Your task to perform on an android device: Search for razer deathadder on newegg, select the first entry, add it to the cart, then select checkout. Image 0: 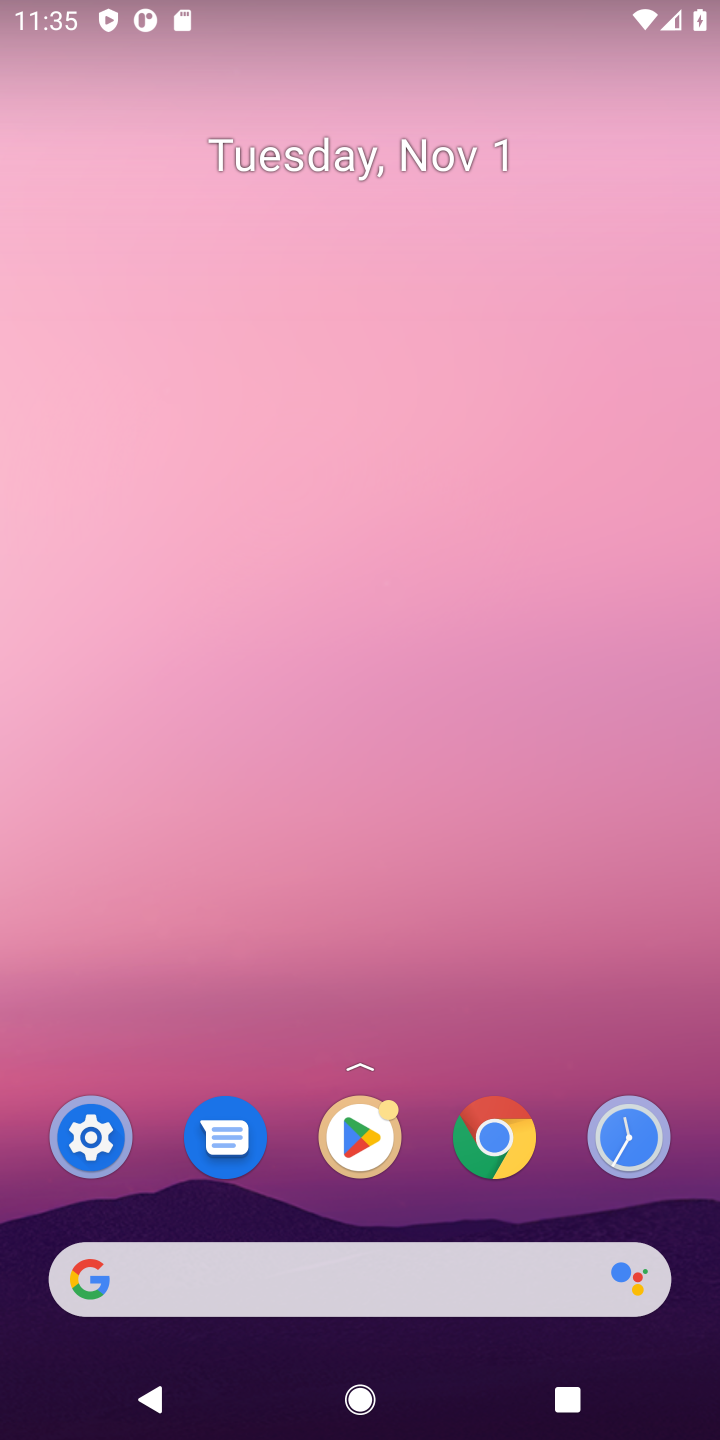
Step 0: click (229, 1292)
Your task to perform on an android device: Search for razer deathadder on newegg, select the first entry, add it to the cart, then select checkout. Image 1: 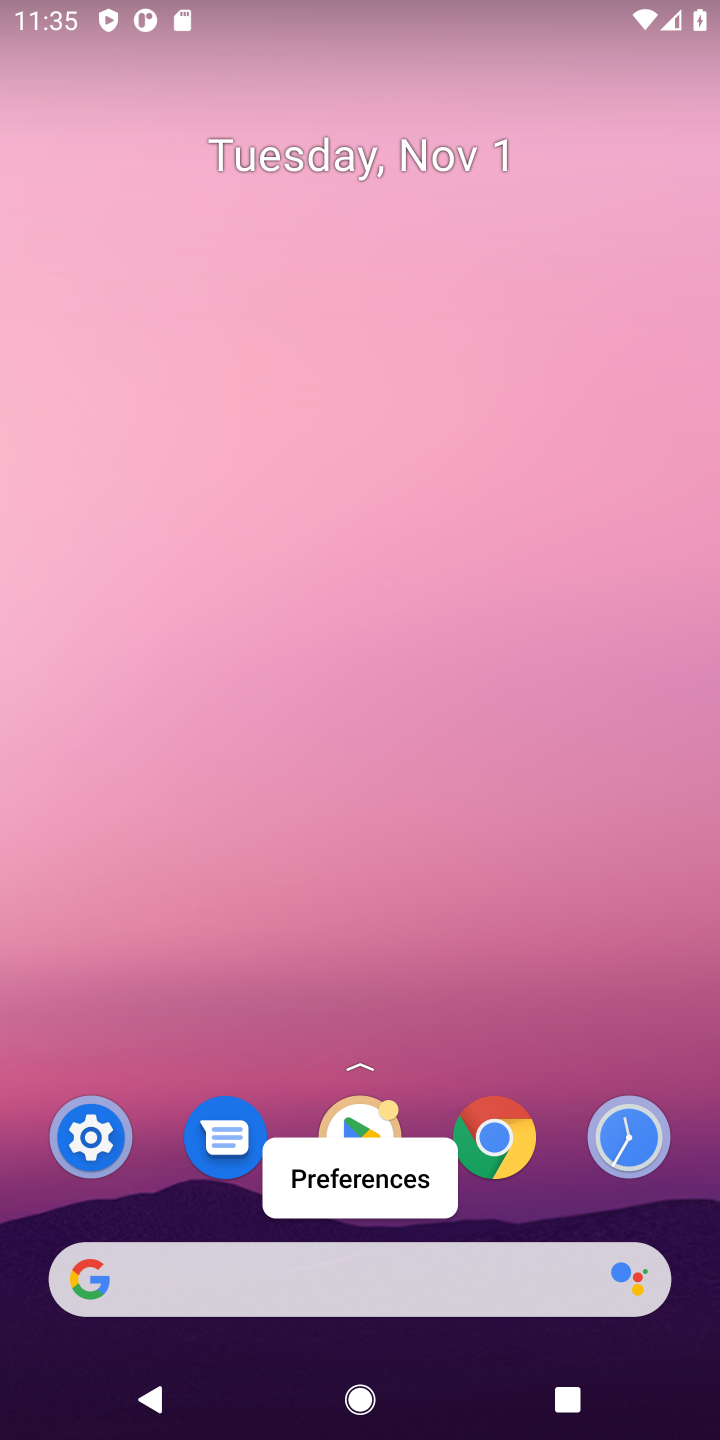
Step 1: click (231, 1277)
Your task to perform on an android device: Search for razer deathadder on newegg, select the first entry, add it to the cart, then select checkout. Image 2: 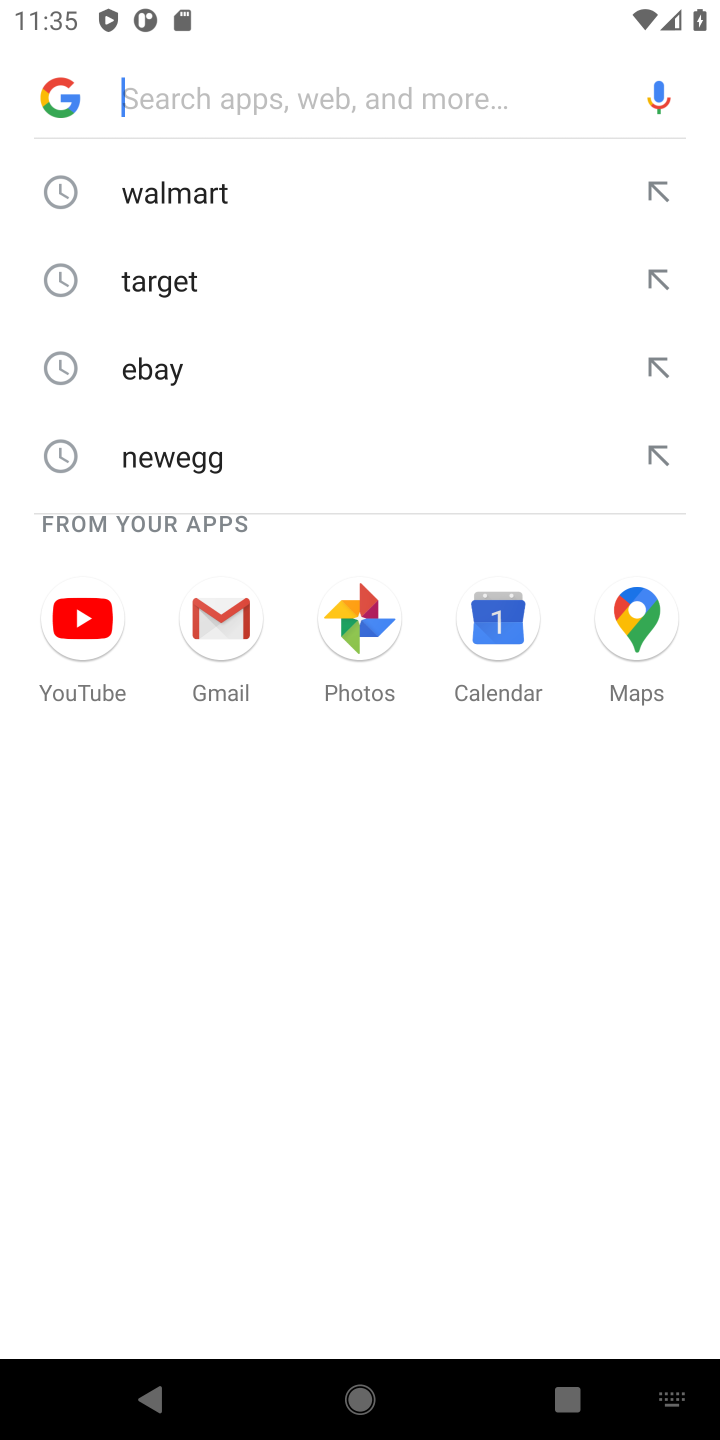
Step 2: type "newegg"
Your task to perform on an android device: Search for razer deathadder on newegg, select the first entry, add it to the cart, then select checkout. Image 3: 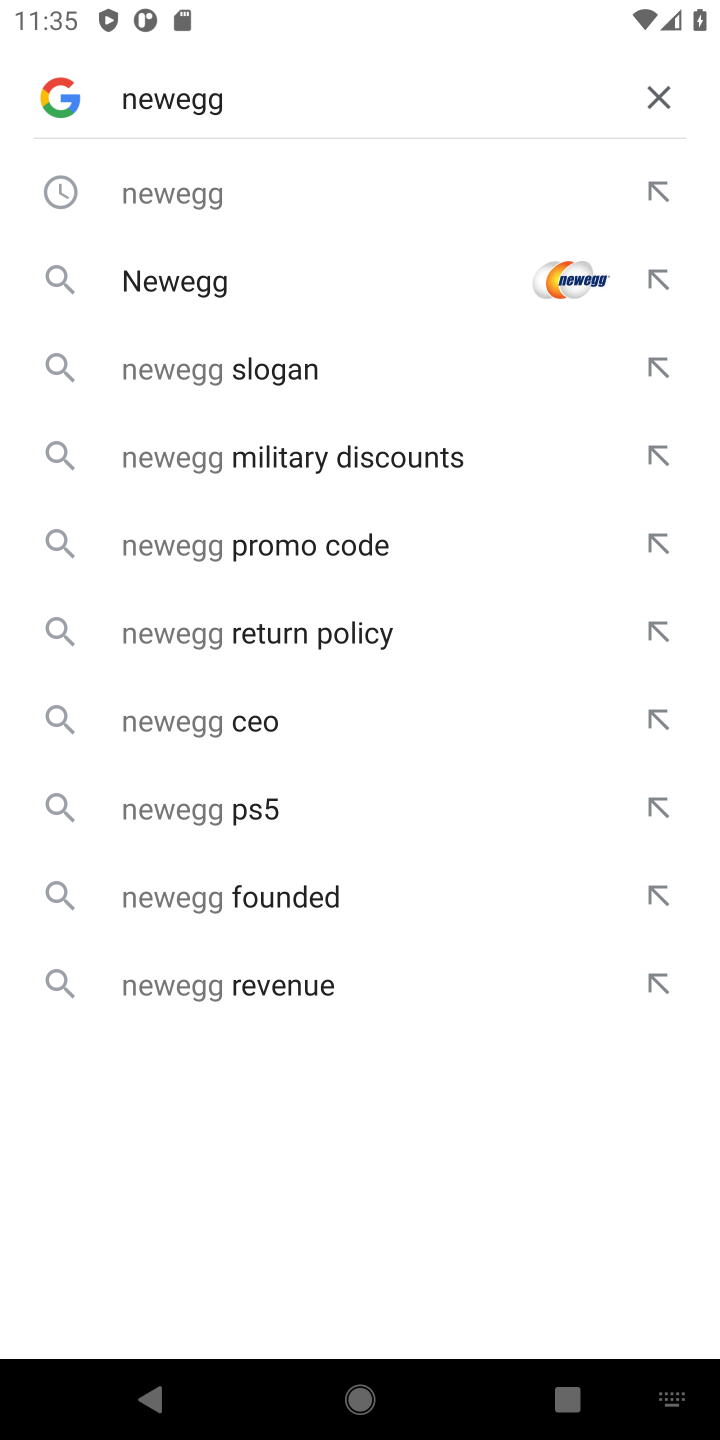
Step 3: type ""
Your task to perform on an android device: Search for razer deathadder on newegg, select the first entry, add it to the cart, then select checkout. Image 4: 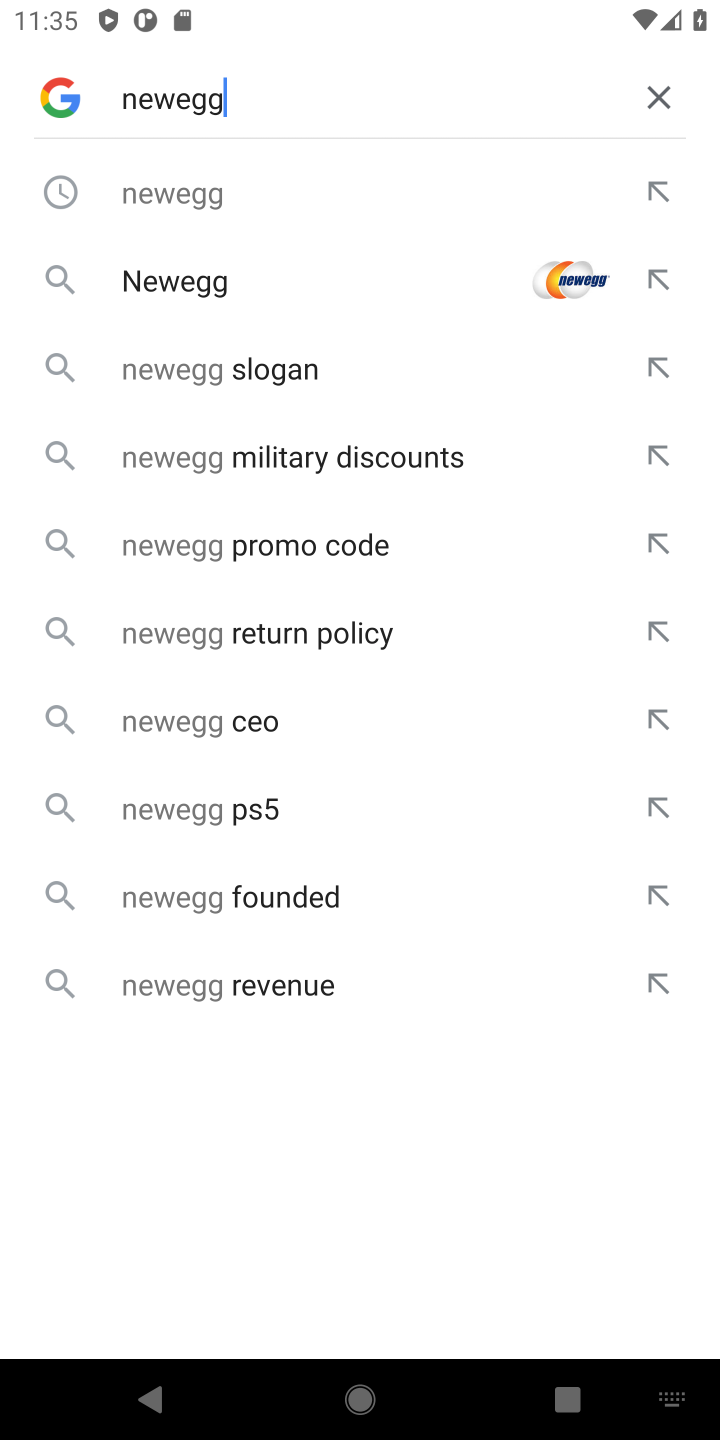
Step 4: press enter
Your task to perform on an android device: Search for razer deathadder on newegg, select the first entry, add it to the cart, then select checkout. Image 5: 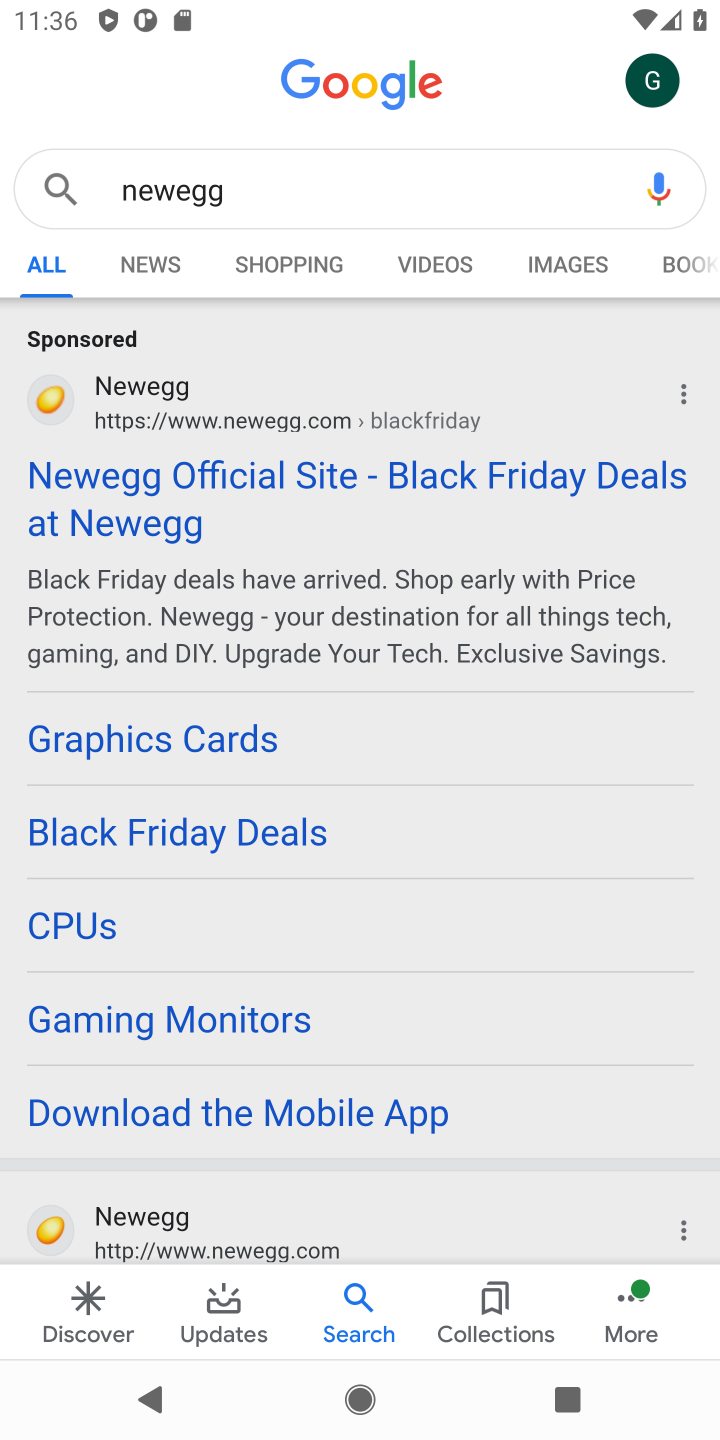
Step 5: click (174, 519)
Your task to perform on an android device: Search for razer deathadder on newegg, select the first entry, add it to the cart, then select checkout. Image 6: 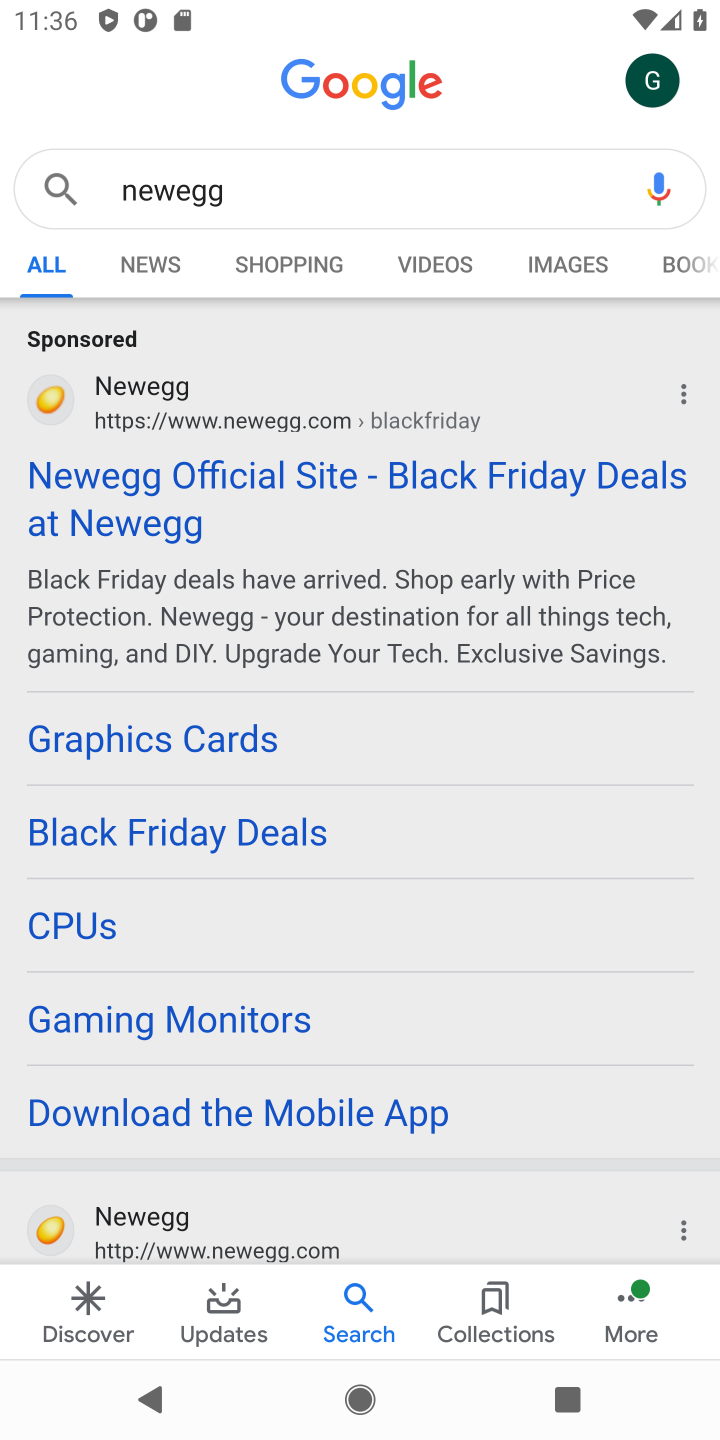
Step 6: click (167, 521)
Your task to perform on an android device: Search for razer deathadder on newegg, select the first entry, add it to the cart, then select checkout. Image 7: 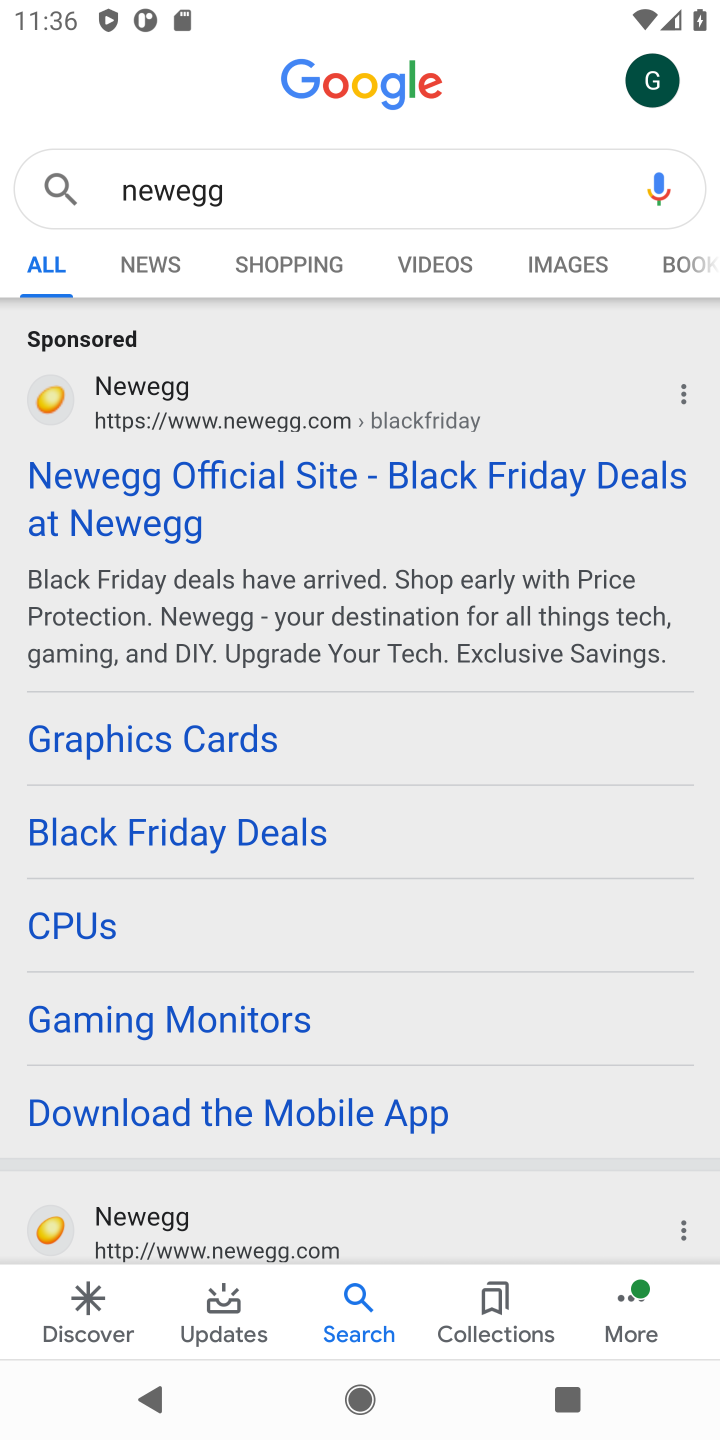
Step 7: click (167, 521)
Your task to perform on an android device: Search for razer deathadder on newegg, select the first entry, add it to the cart, then select checkout. Image 8: 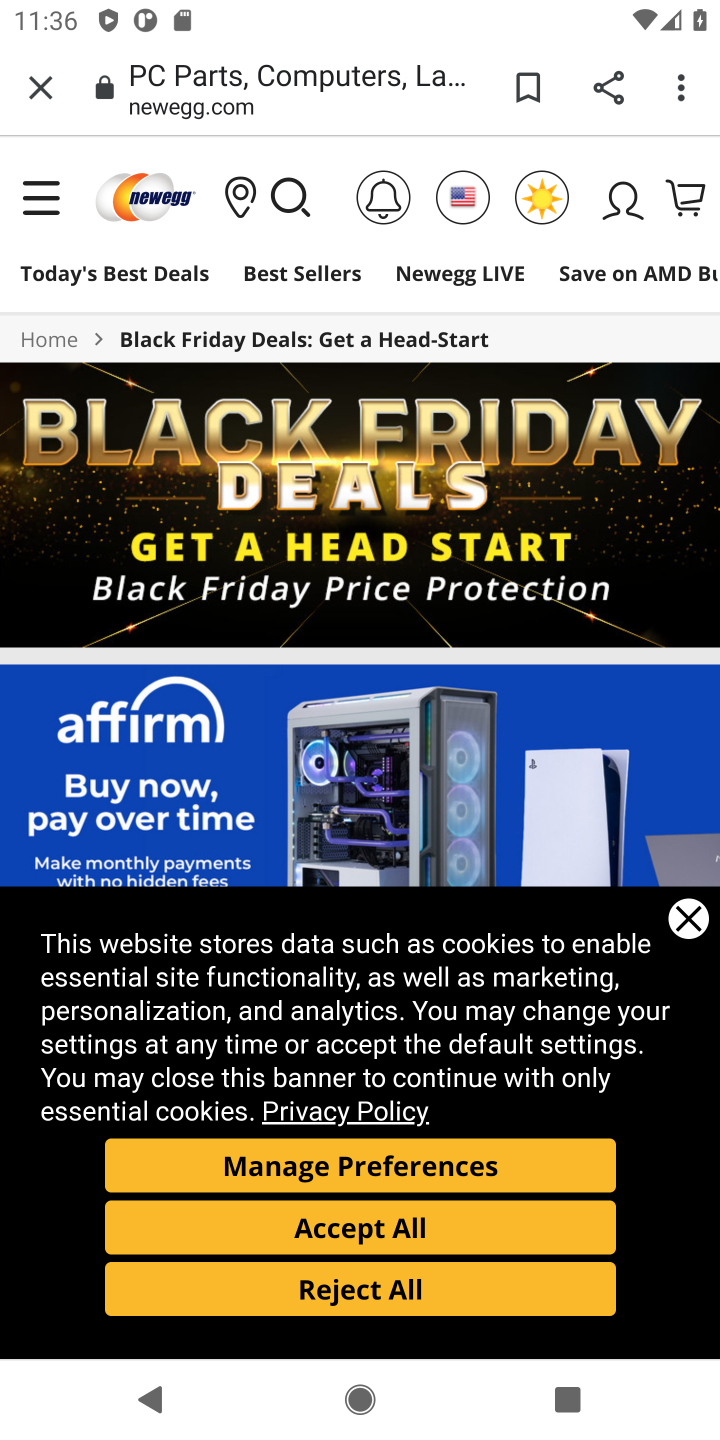
Step 8: click (391, 1292)
Your task to perform on an android device: Search for razer deathadder on newegg, select the first entry, add it to the cart, then select checkout. Image 9: 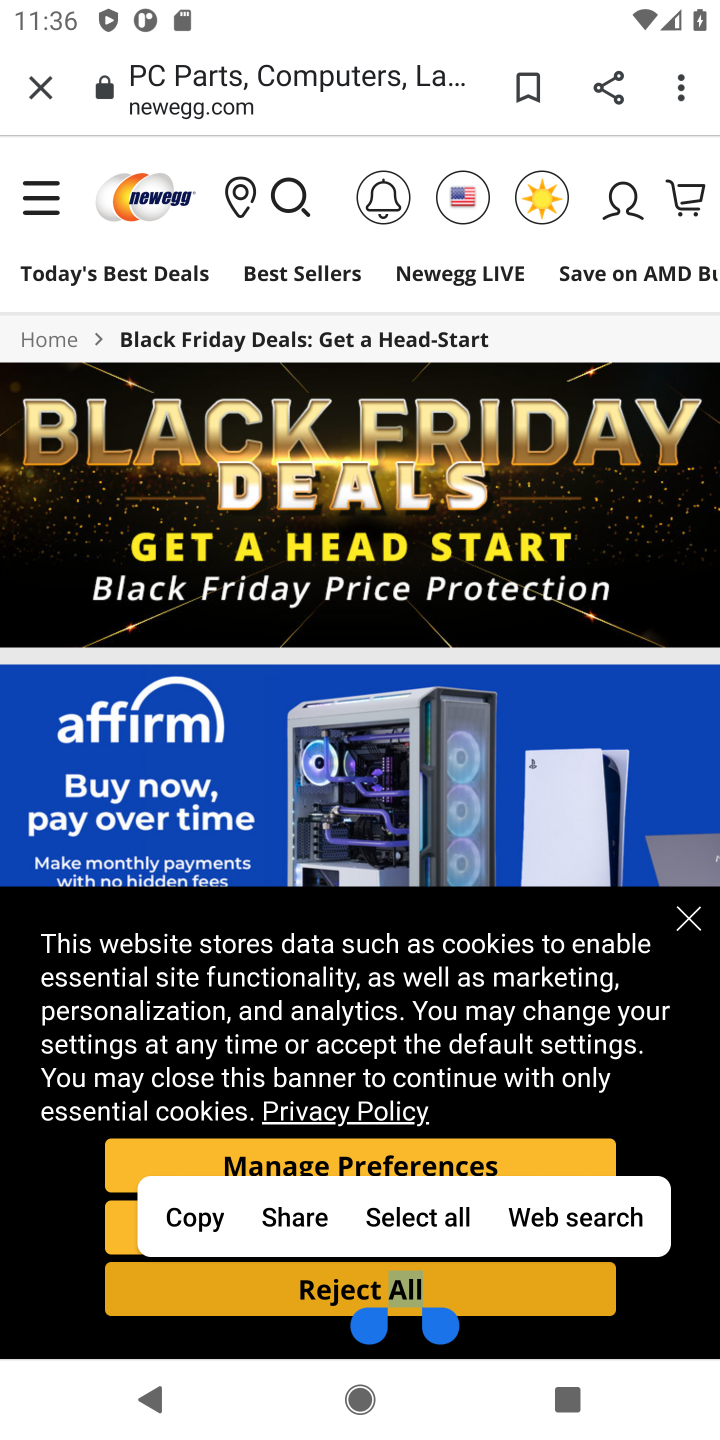
Step 9: click (342, 1294)
Your task to perform on an android device: Search for razer deathadder on newegg, select the first entry, add it to the cart, then select checkout. Image 10: 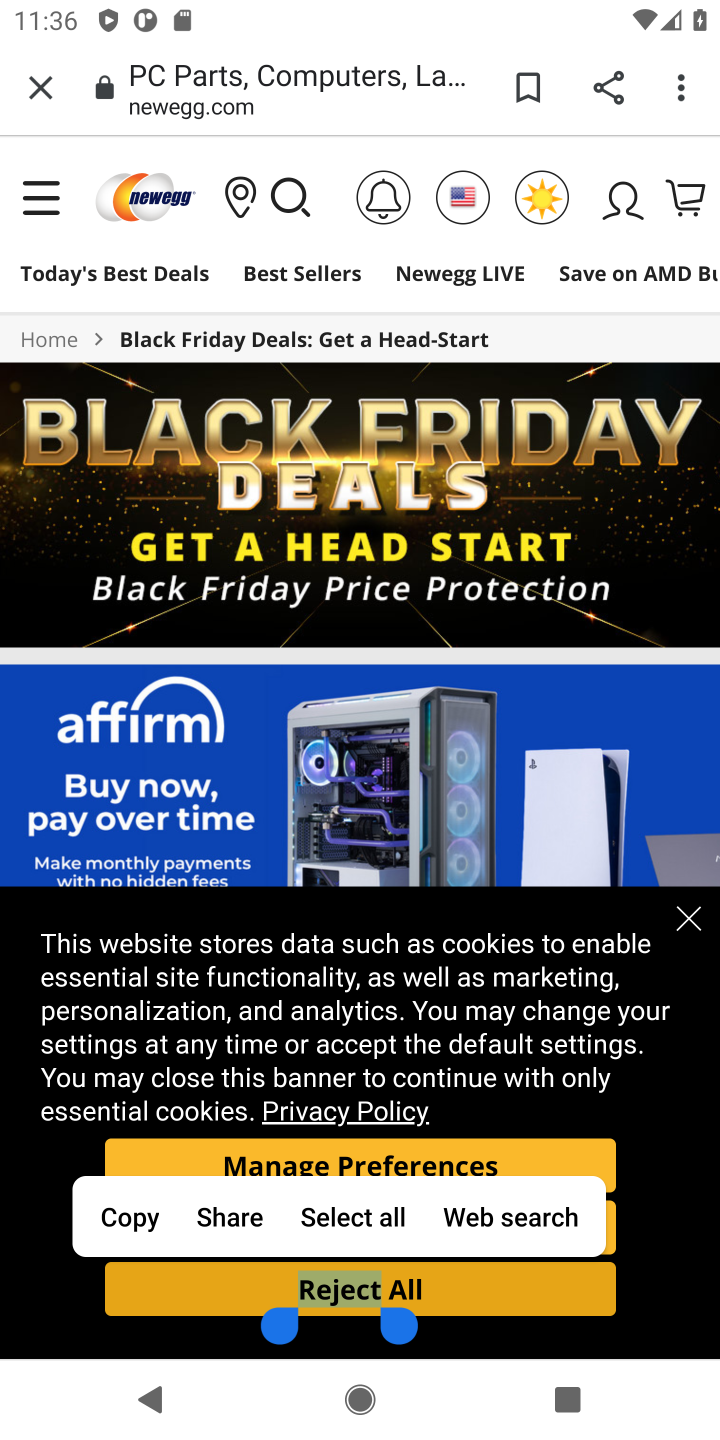
Step 10: click (342, 1294)
Your task to perform on an android device: Search for razer deathadder on newegg, select the first entry, add it to the cart, then select checkout. Image 11: 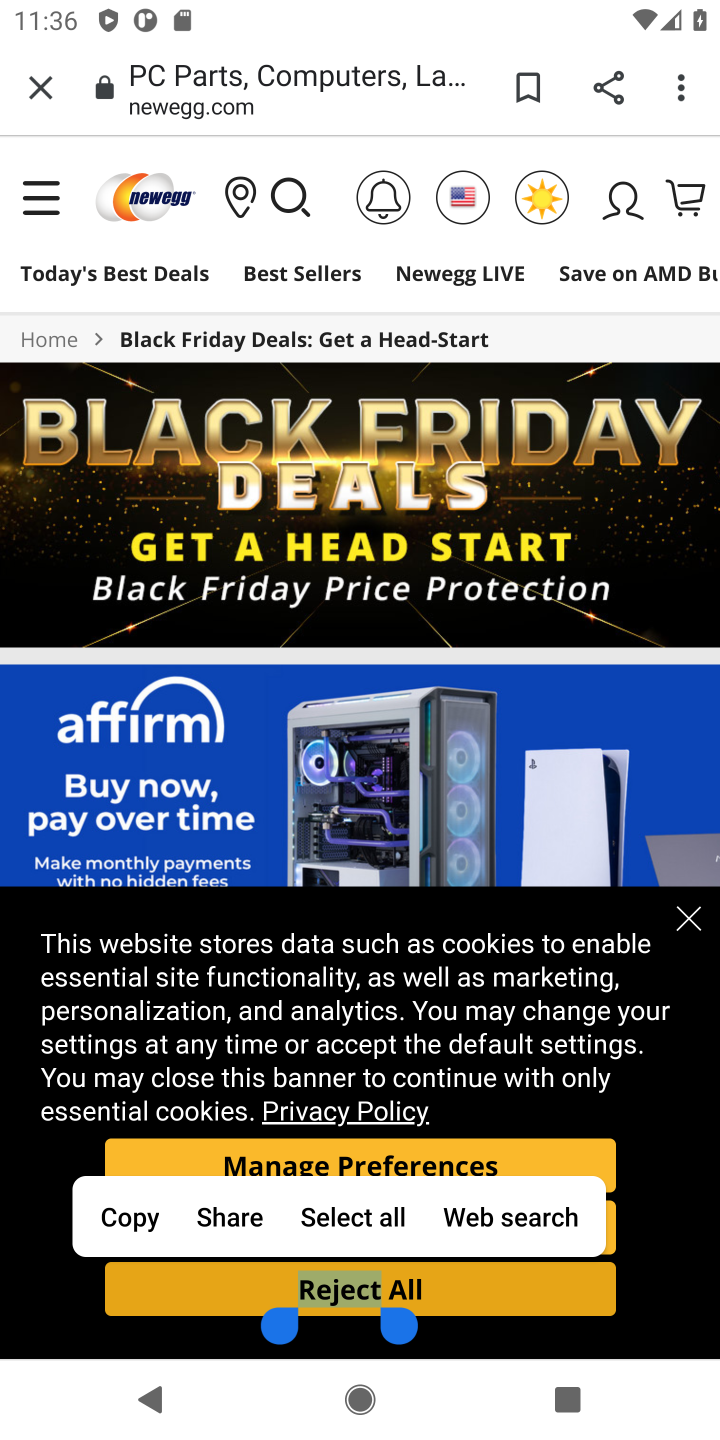
Step 11: click (42, 1213)
Your task to perform on an android device: Search for razer deathadder on newegg, select the first entry, add it to the cart, then select checkout. Image 12: 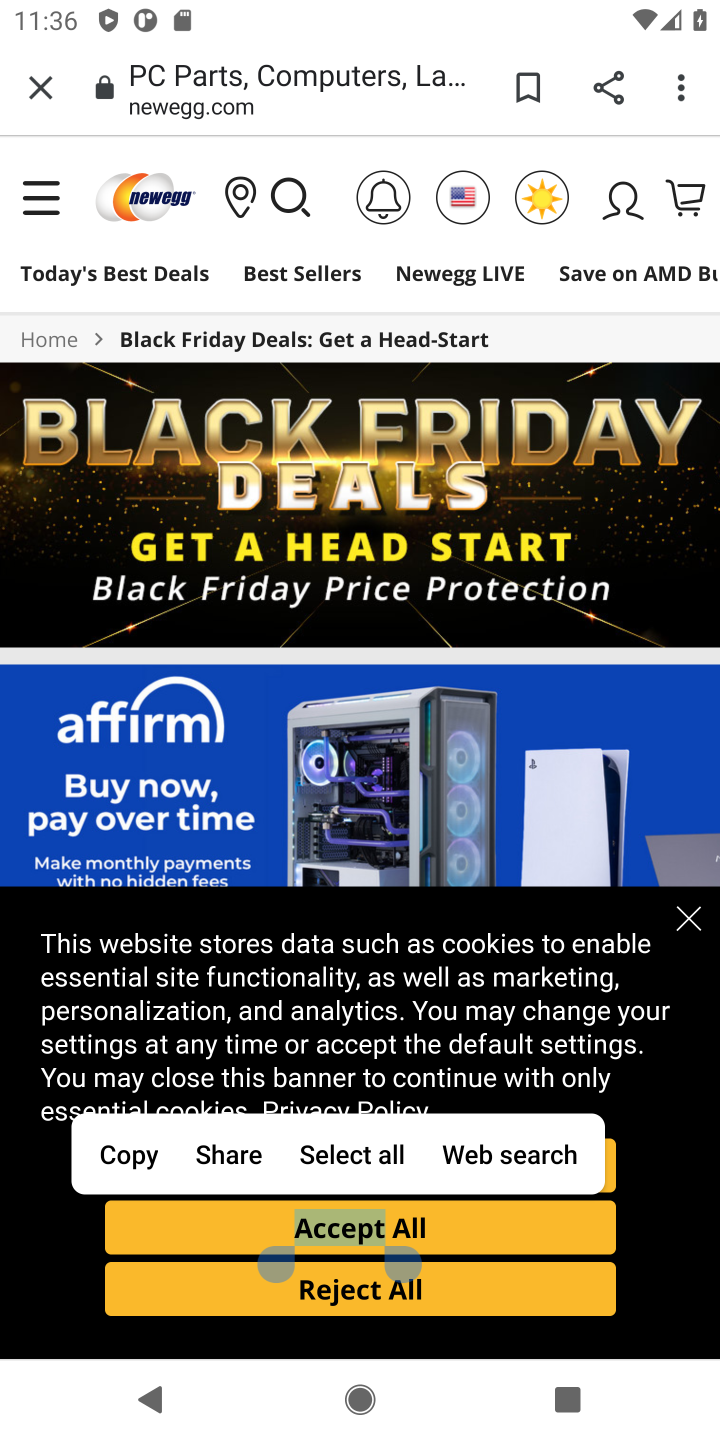
Step 12: click (407, 1290)
Your task to perform on an android device: Search for razer deathadder on newegg, select the first entry, add it to the cart, then select checkout. Image 13: 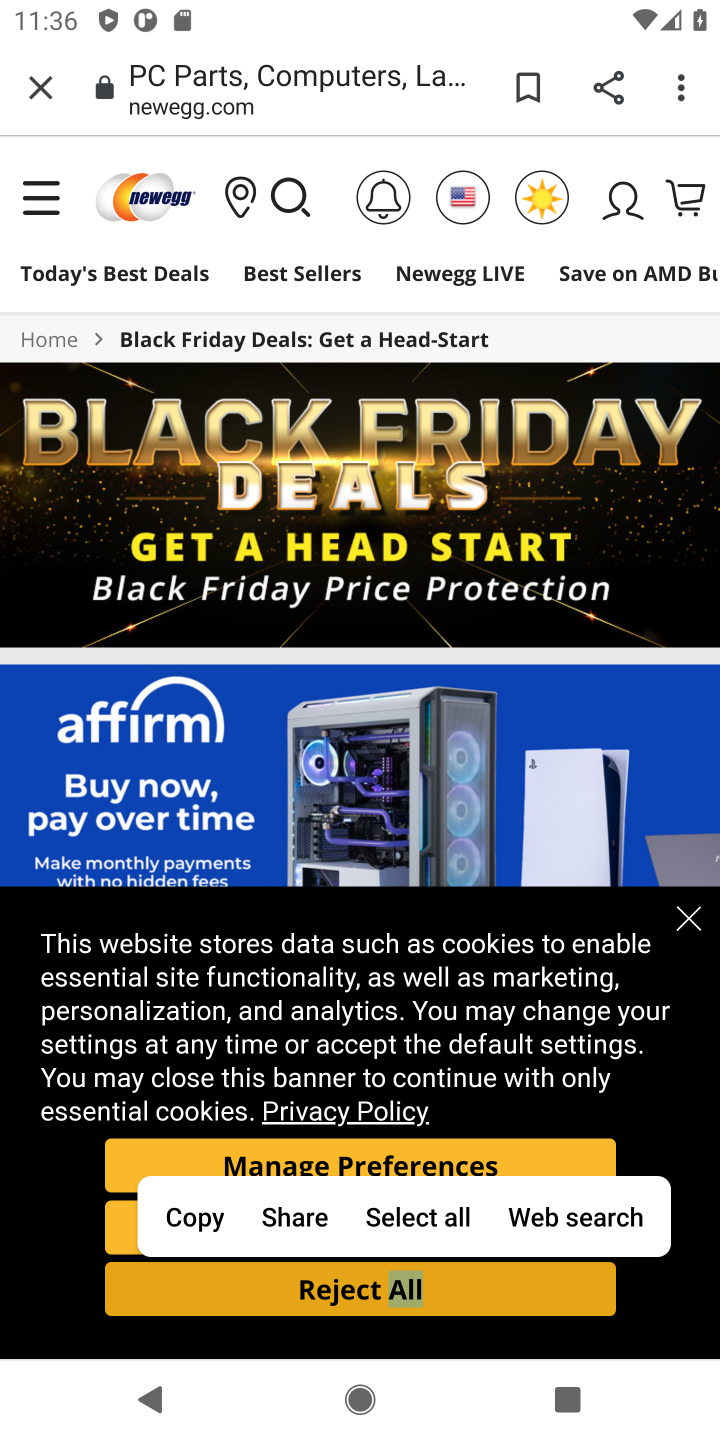
Step 13: click (380, 1299)
Your task to perform on an android device: Search for razer deathadder on newegg, select the first entry, add it to the cart, then select checkout. Image 14: 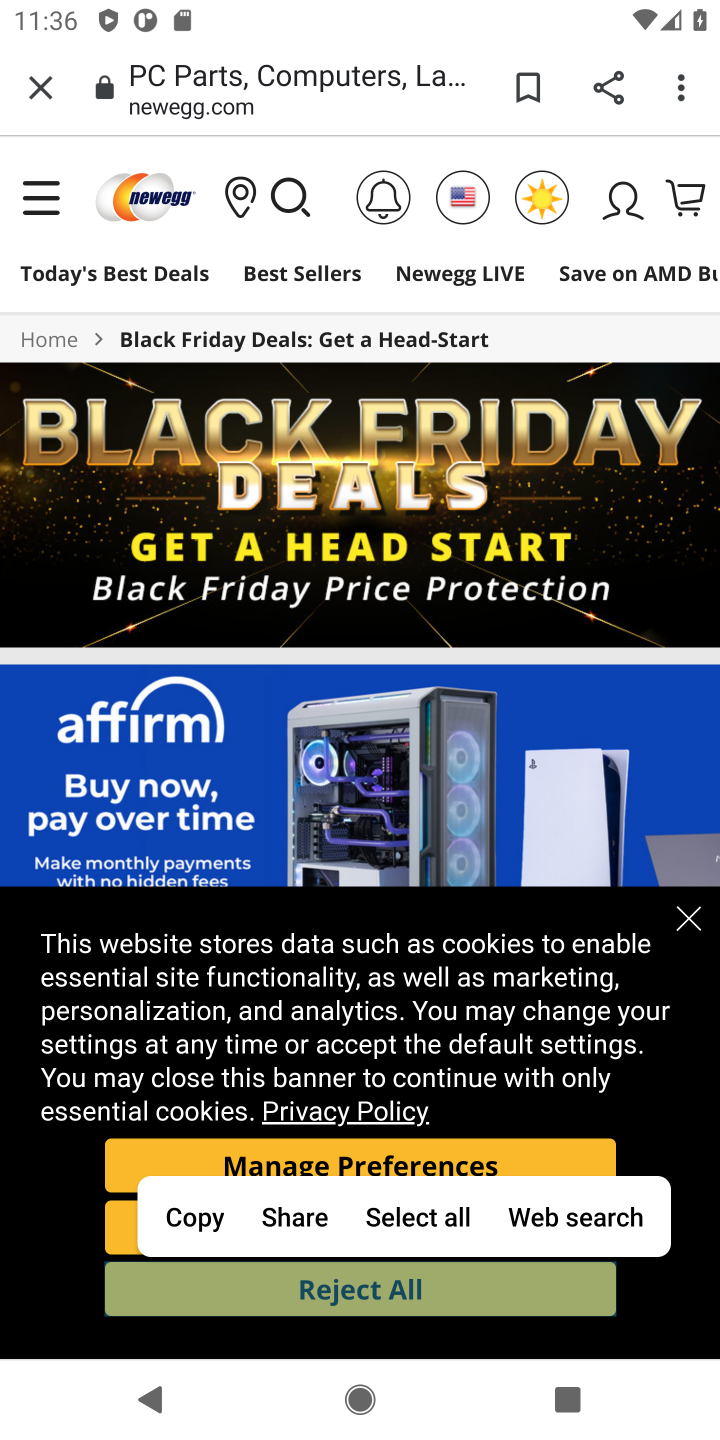
Step 14: click (350, 1302)
Your task to perform on an android device: Search for razer deathadder on newegg, select the first entry, add it to the cart, then select checkout. Image 15: 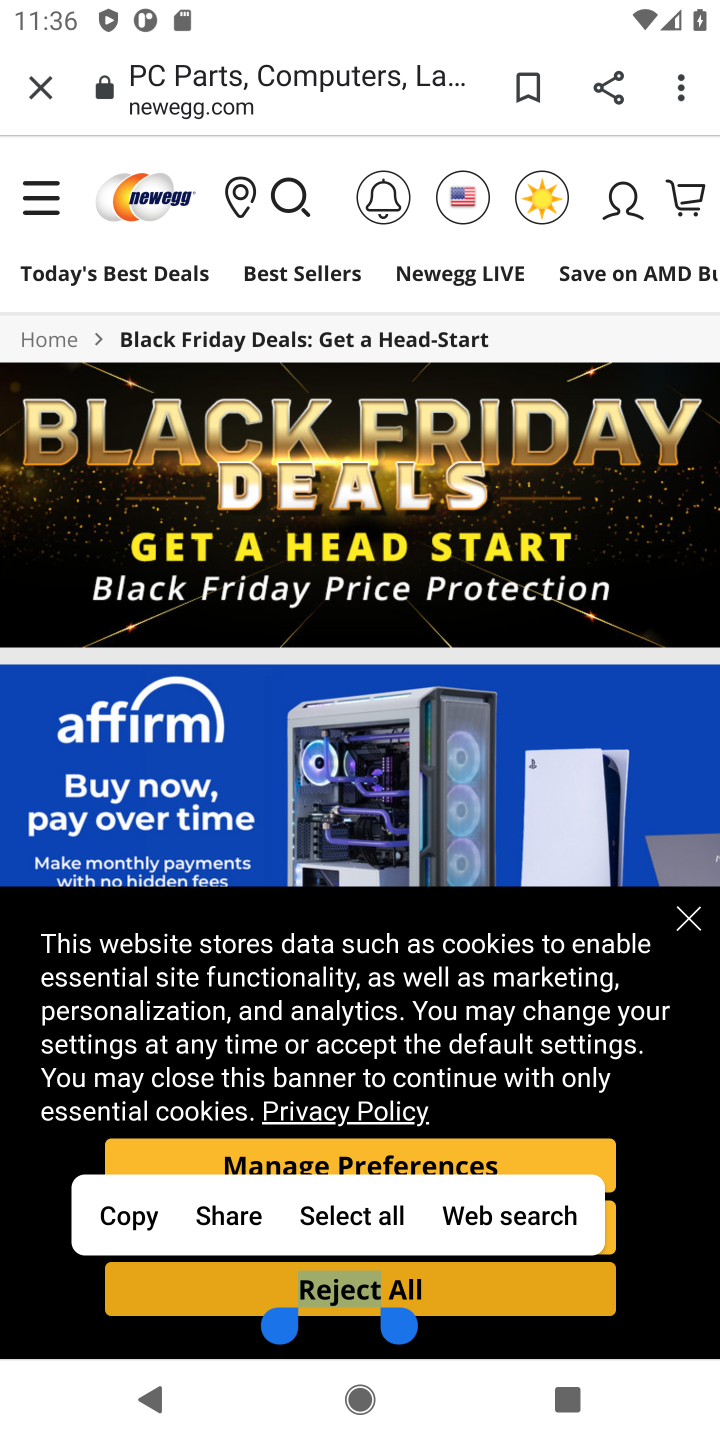
Step 15: click (347, 1299)
Your task to perform on an android device: Search for razer deathadder on newegg, select the first entry, add it to the cart, then select checkout. Image 16: 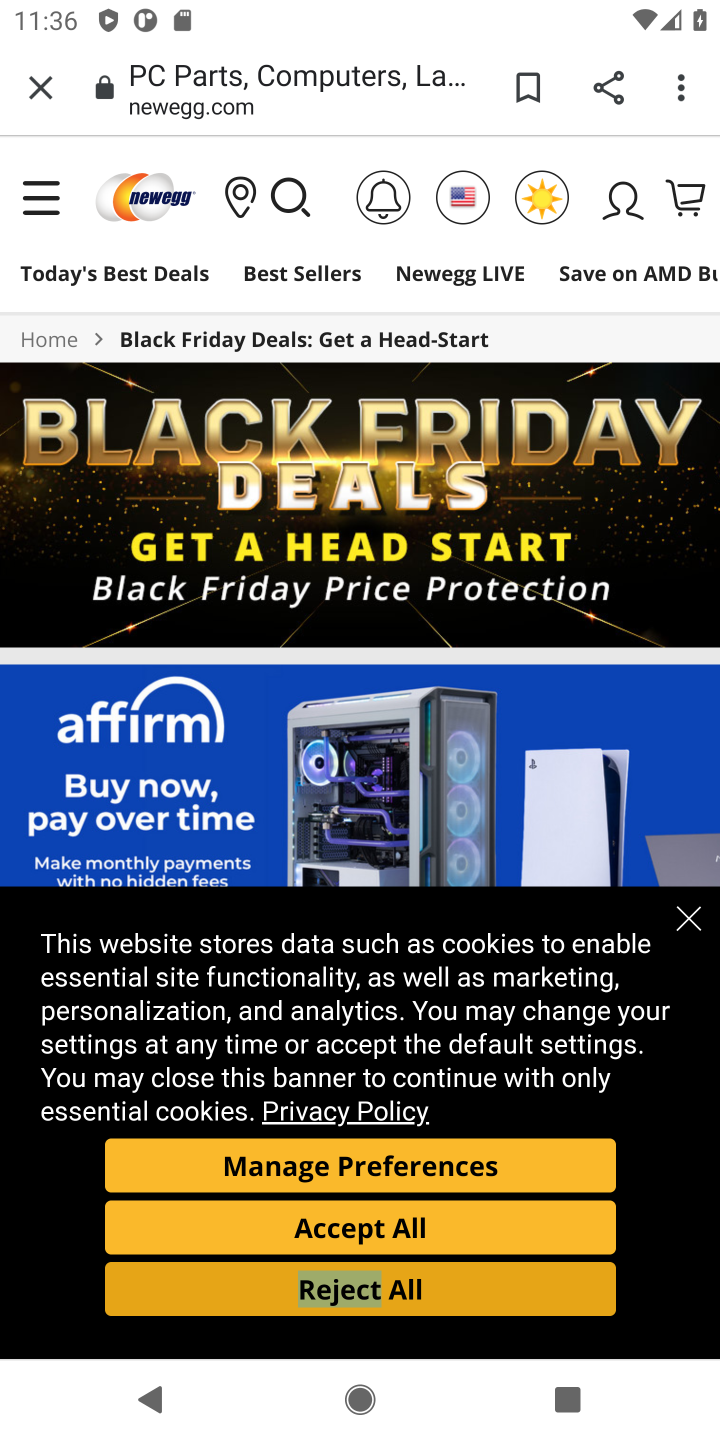
Step 16: click (395, 1288)
Your task to perform on an android device: Search for razer deathadder on newegg, select the first entry, add it to the cart, then select checkout. Image 17: 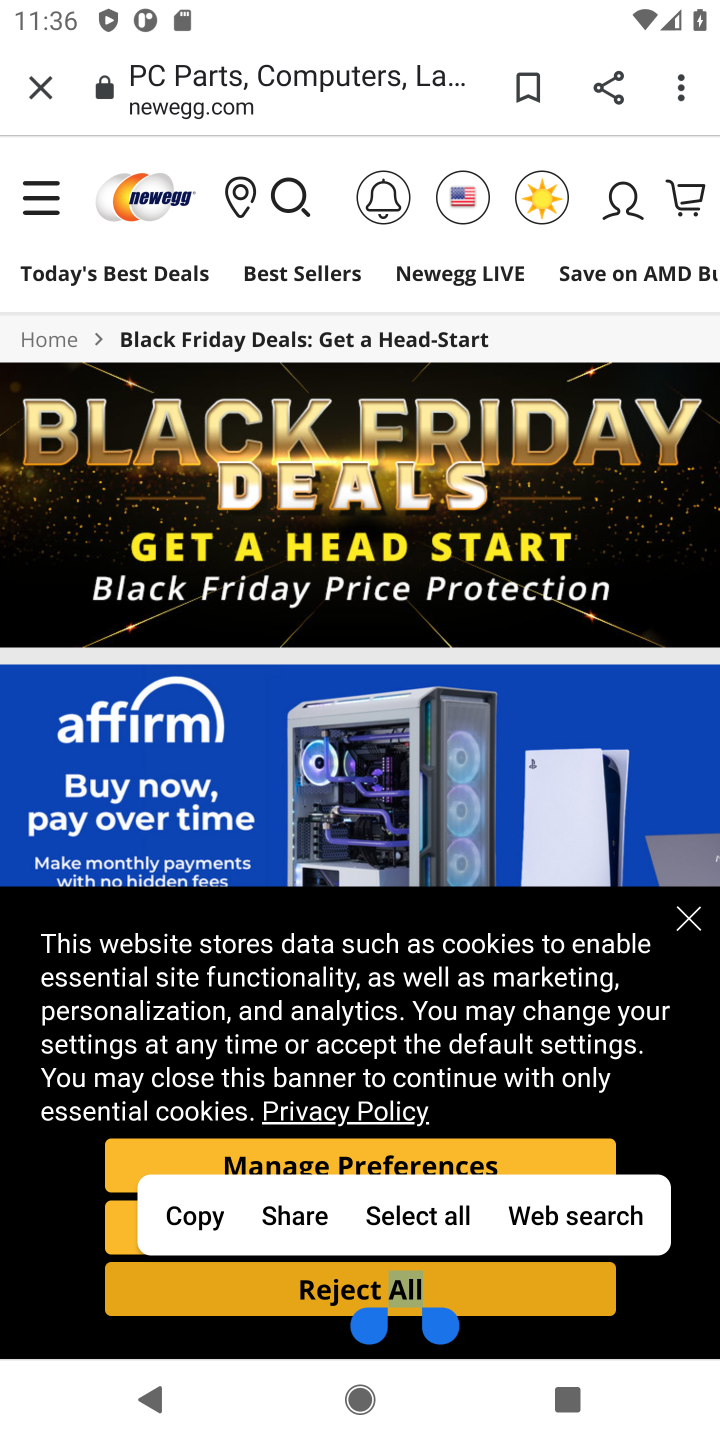
Step 17: click (66, 132)
Your task to perform on an android device: Search for razer deathadder on newegg, select the first entry, add it to the cart, then select checkout. Image 18: 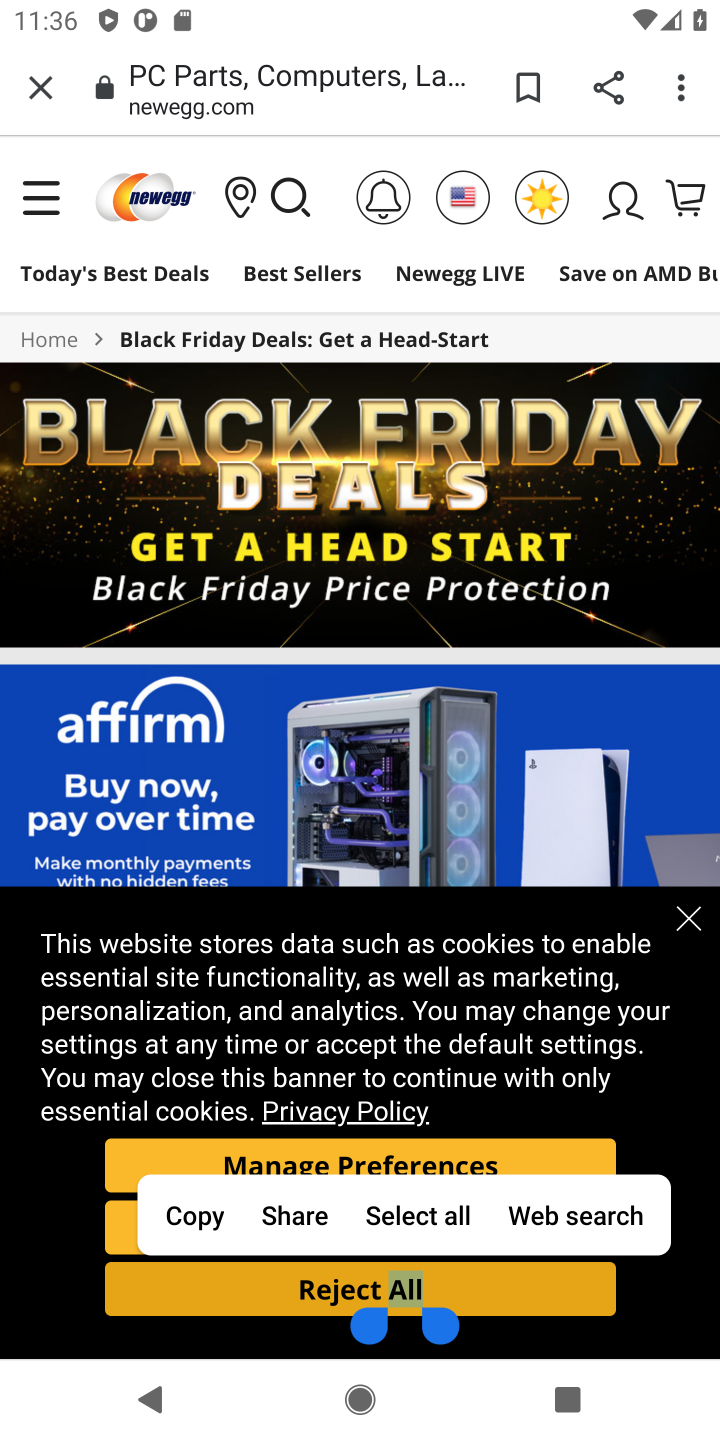
Step 18: click (686, 925)
Your task to perform on an android device: Search for razer deathadder on newegg, select the first entry, add it to the cart, then select checkout. Image 19: 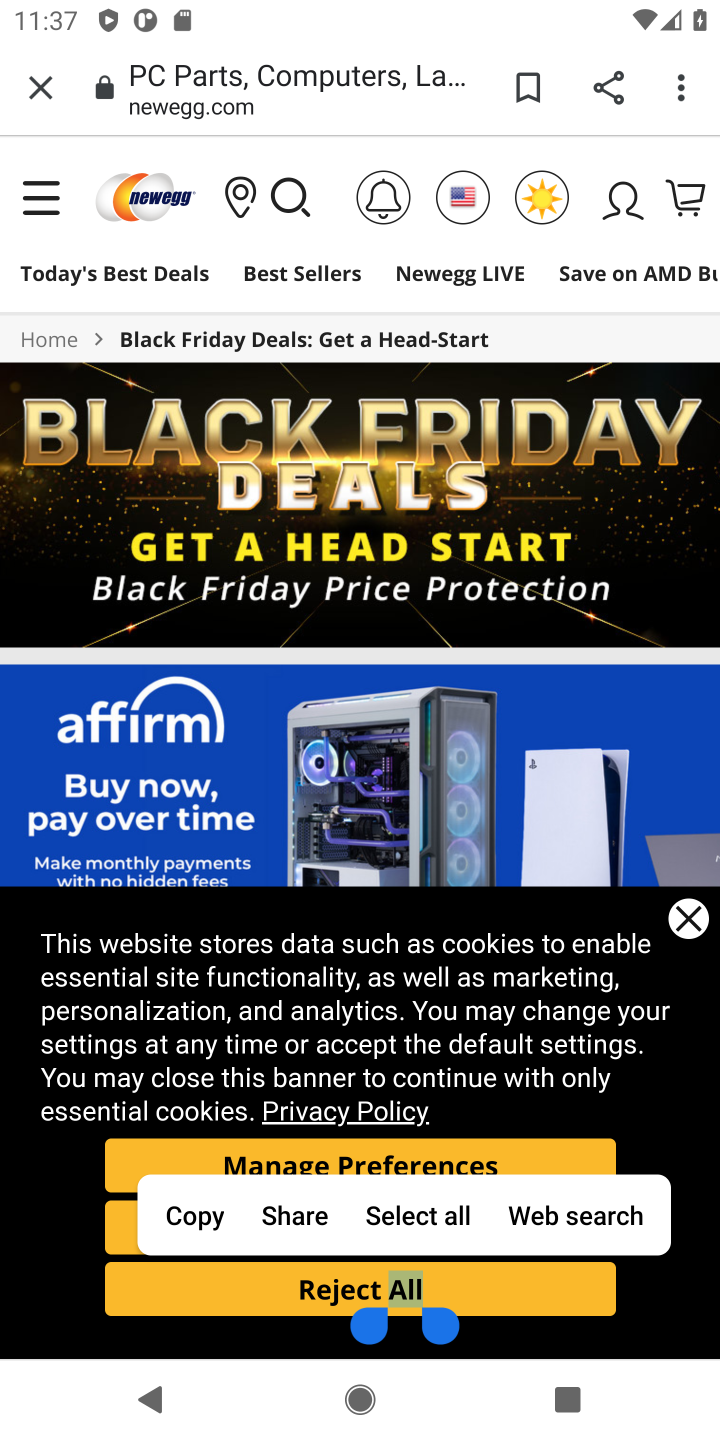
Step 19: click (686, 925)
Your task to perform on an android device: Search for razer deathadder on newegg, select the first entry, add it to the cart, then select checkout. Image 20: 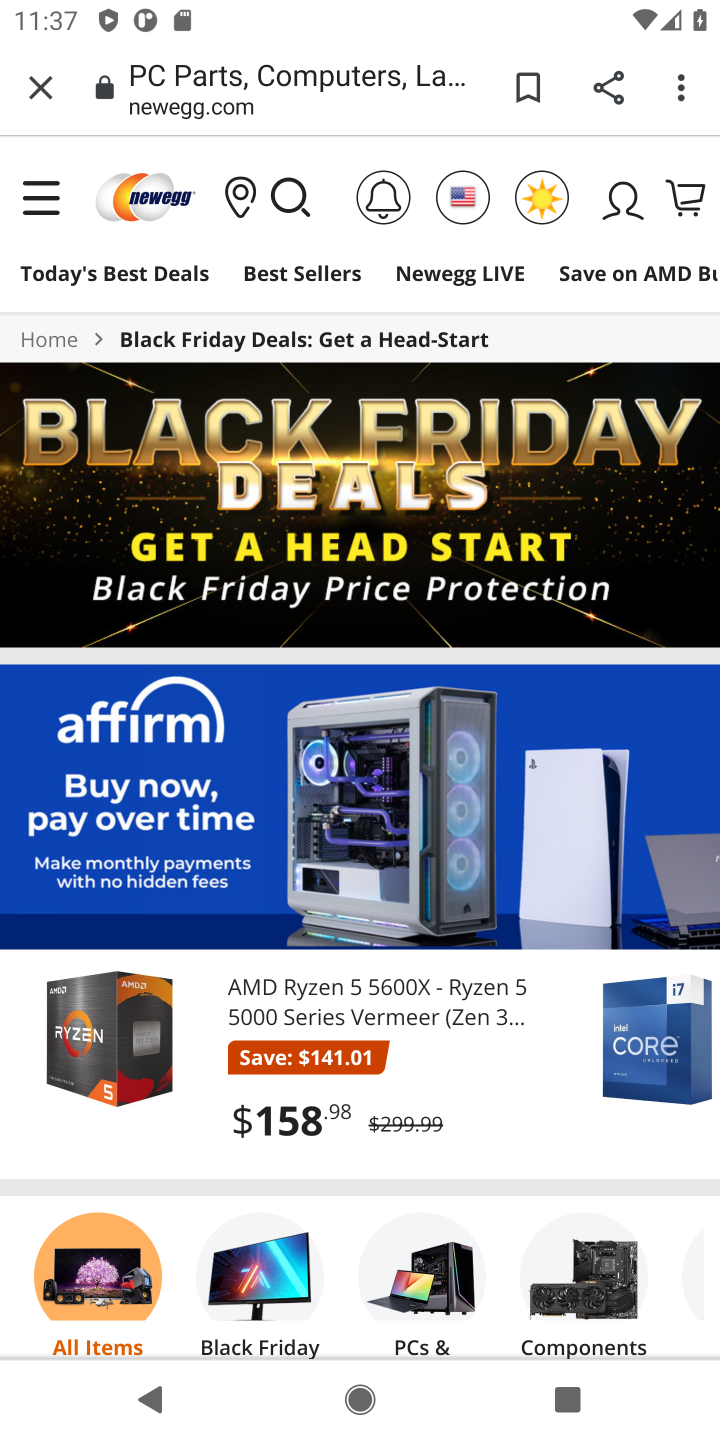
Step 20: click (290, 179)
Your task to perform on an android device: Search for razer deathadder on newegg, select the first entry, add it to the cart, then select checkout. Image 21: 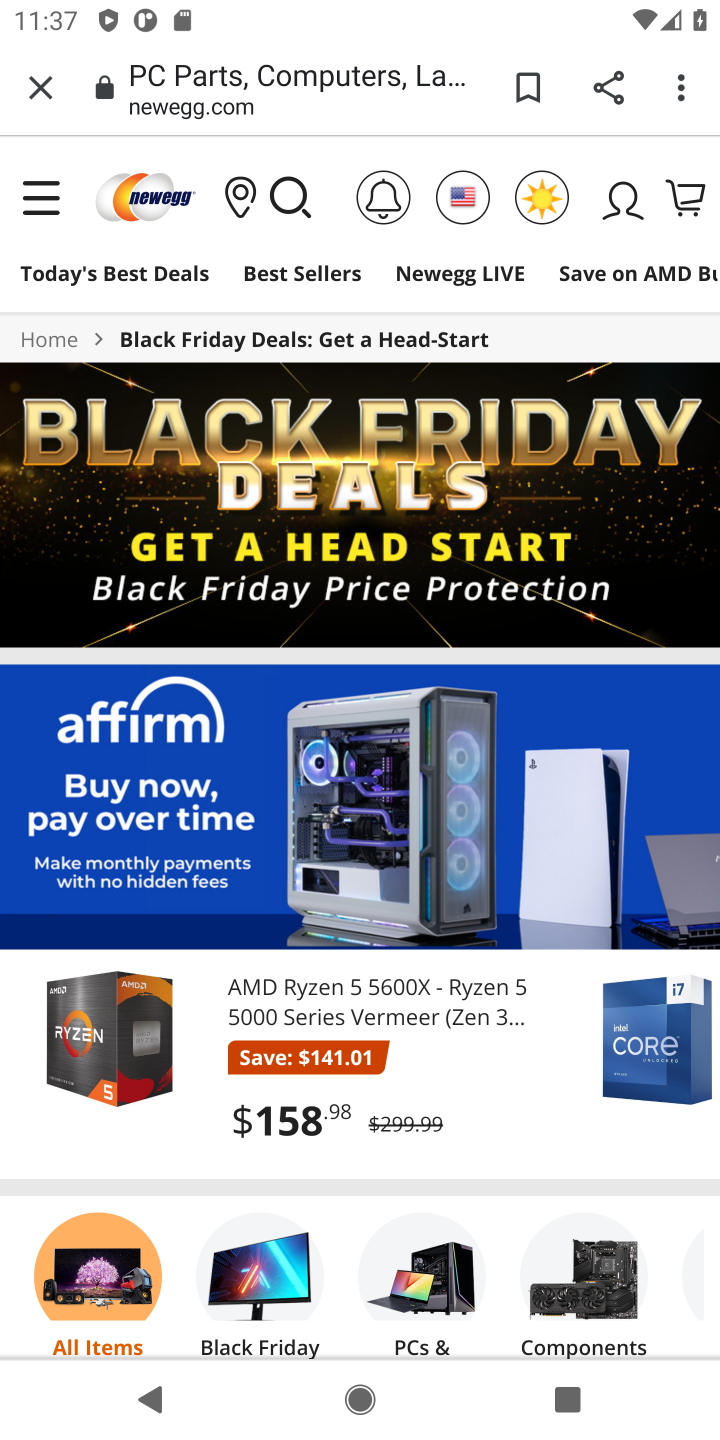
Step 21: click (284, 184)
Your task to perform on an android device: Search for razer deathadder on newegg, select the first entry, add it to the cart, then select checkout. Image 22: 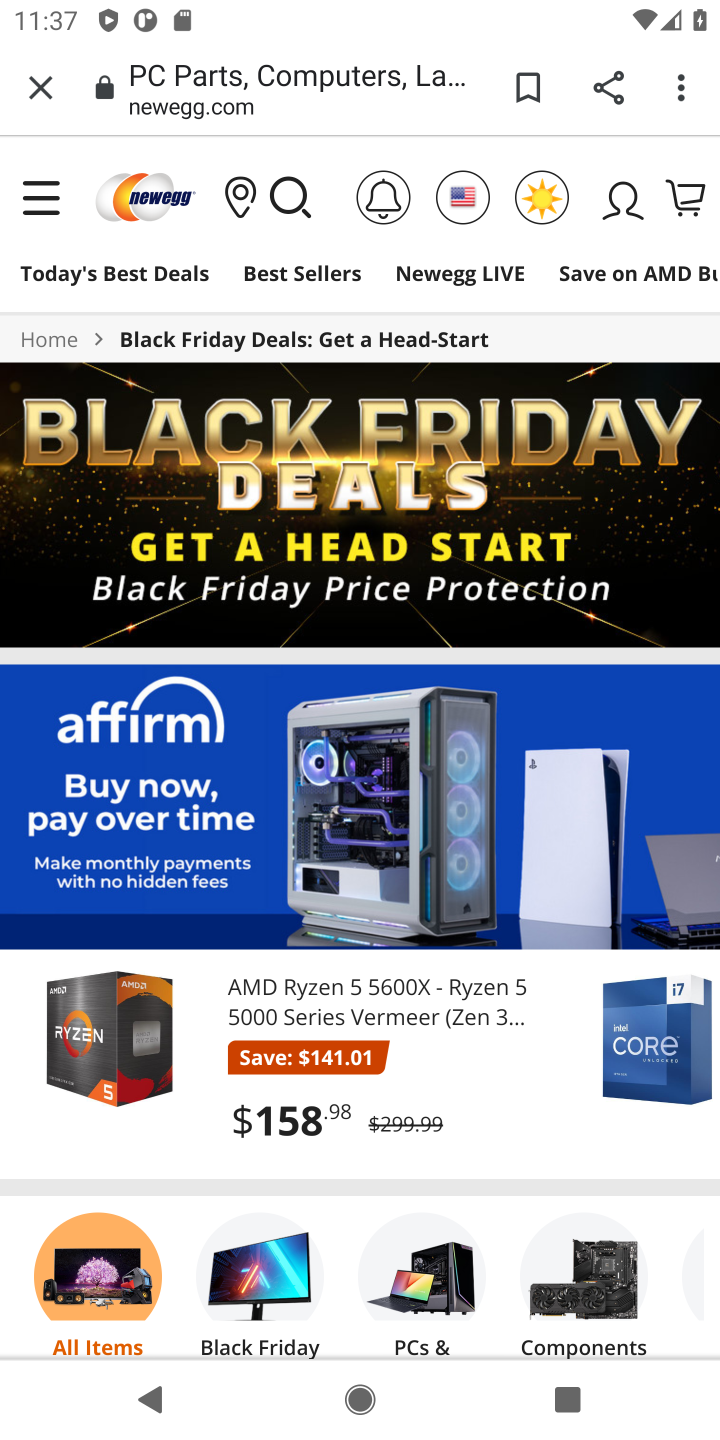
Step 22: drag from (535, 1197) to (528, 551)
Your task to perform on an android device: Search for razer deathadder on newegg, select the first entry, add it to the cart, then select checkout. Image 23: 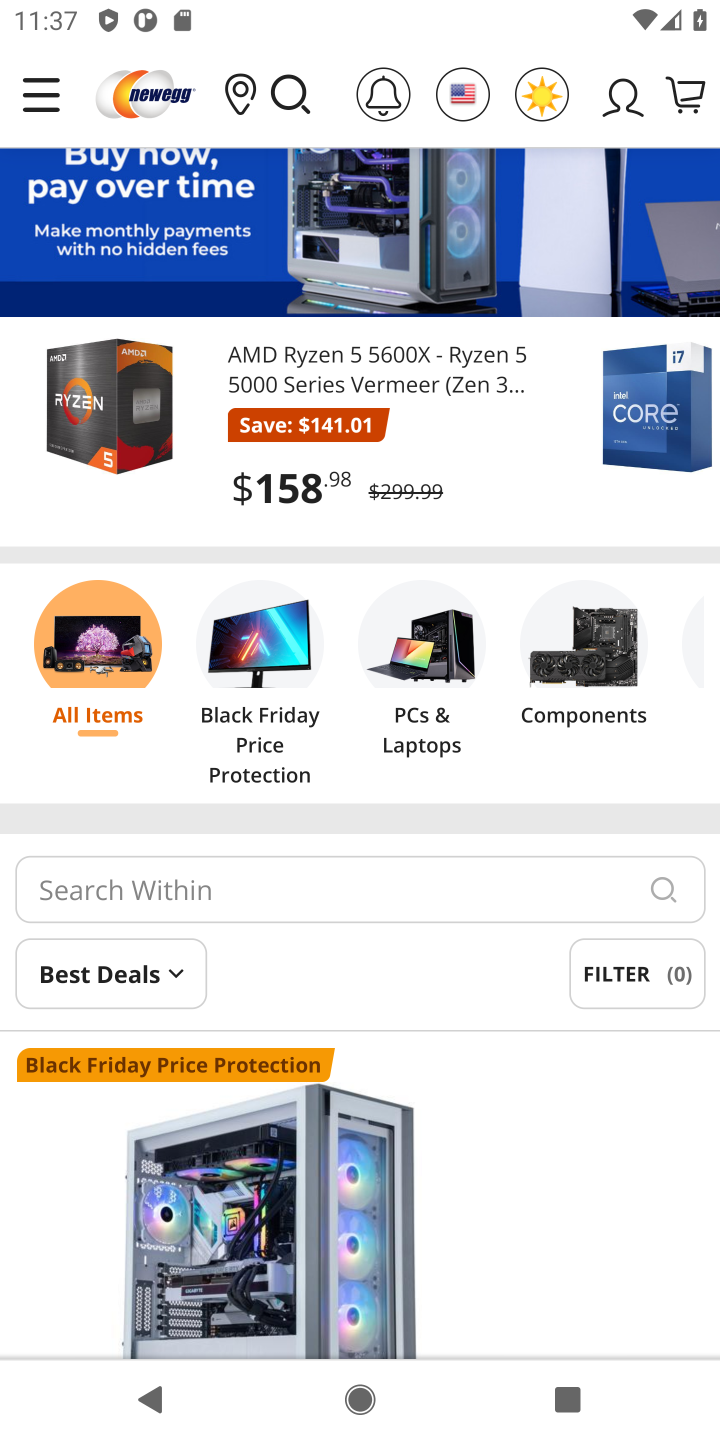
Step 23: click (381, 879)
Your task to perform on an android device: Search for razer deathadder on newegg, select the first entry, add it to the cart, then select checkout. Image 24: 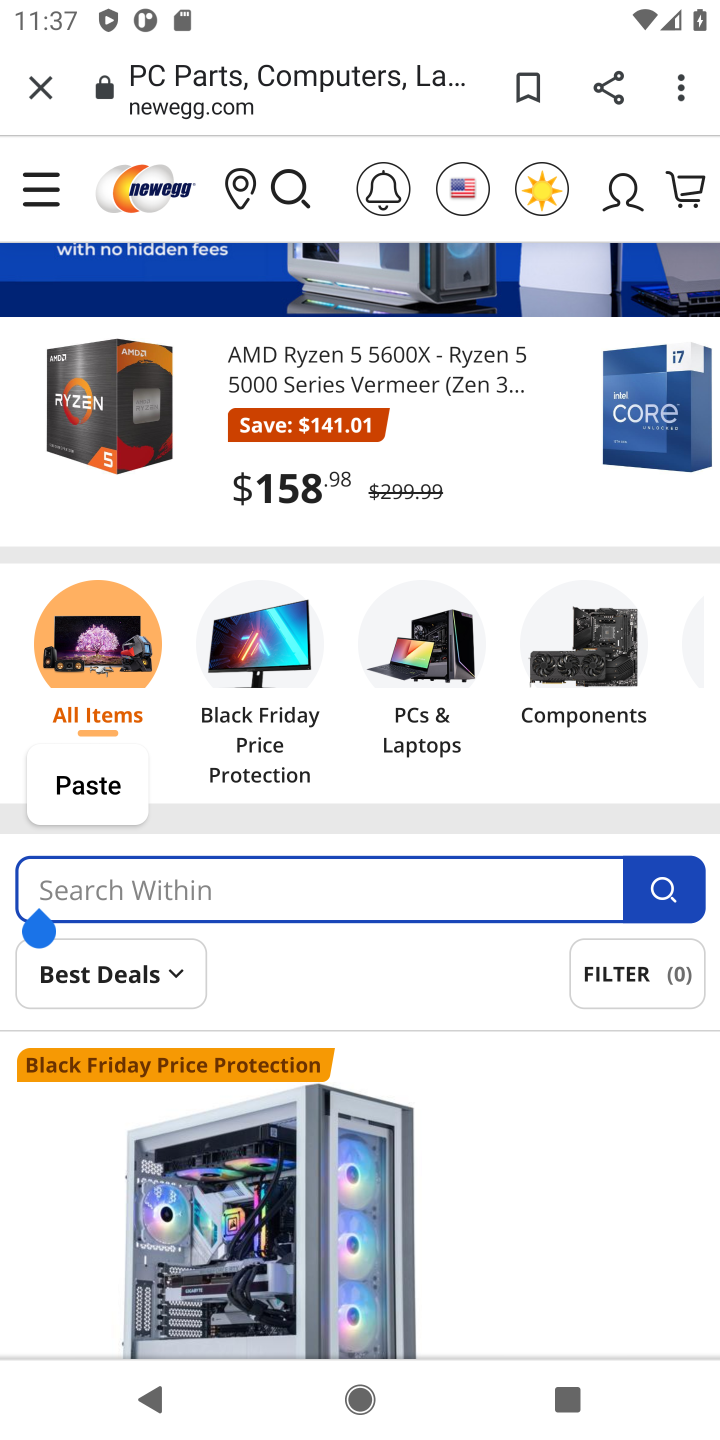
Step 24: click (322, 899)
Your task to perform on an android device: Search for razer deathadder on newegg, select the first entry, add it to the cart, then select checkout. Image 25: 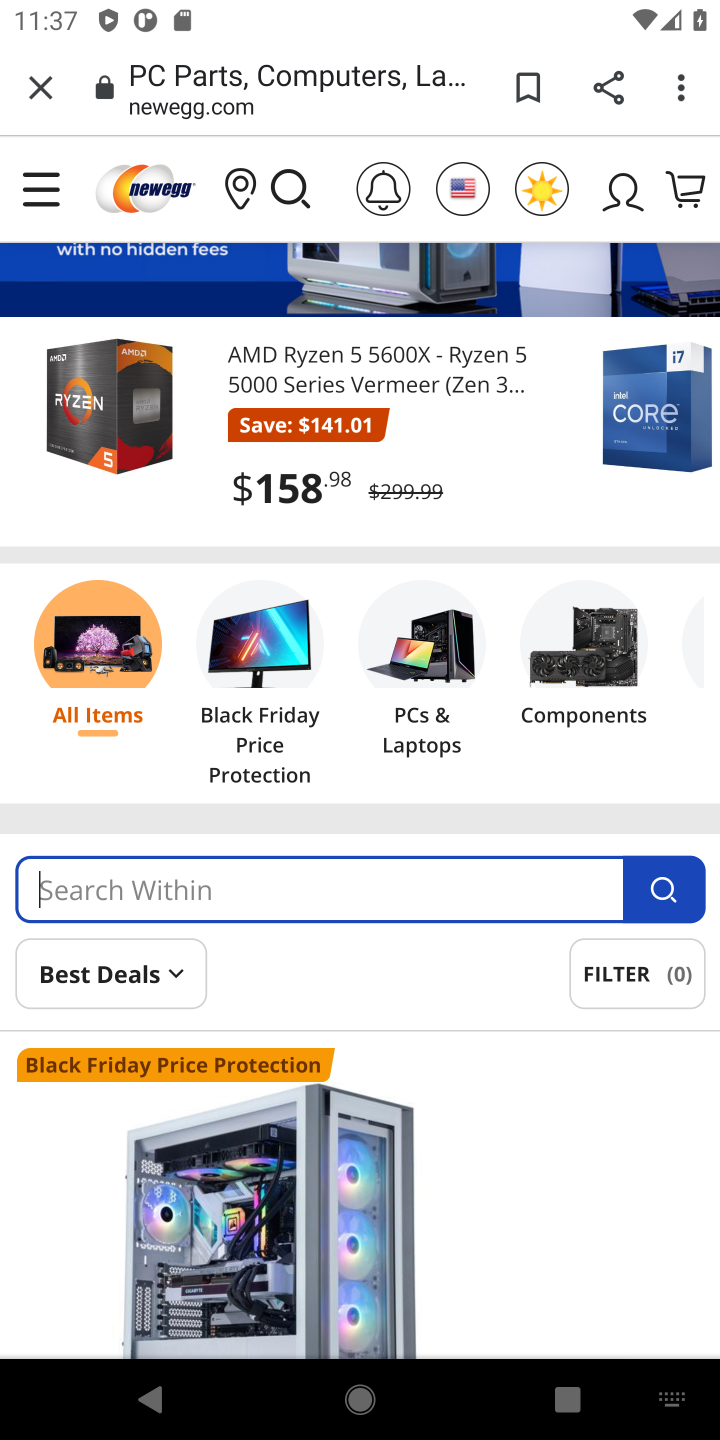
Step 25: type "razer deathadder"
Your task to perform on an android device: Search for razer deathadder on newegg, select the first entry, add it to the cart, then select checkout. Image 26: 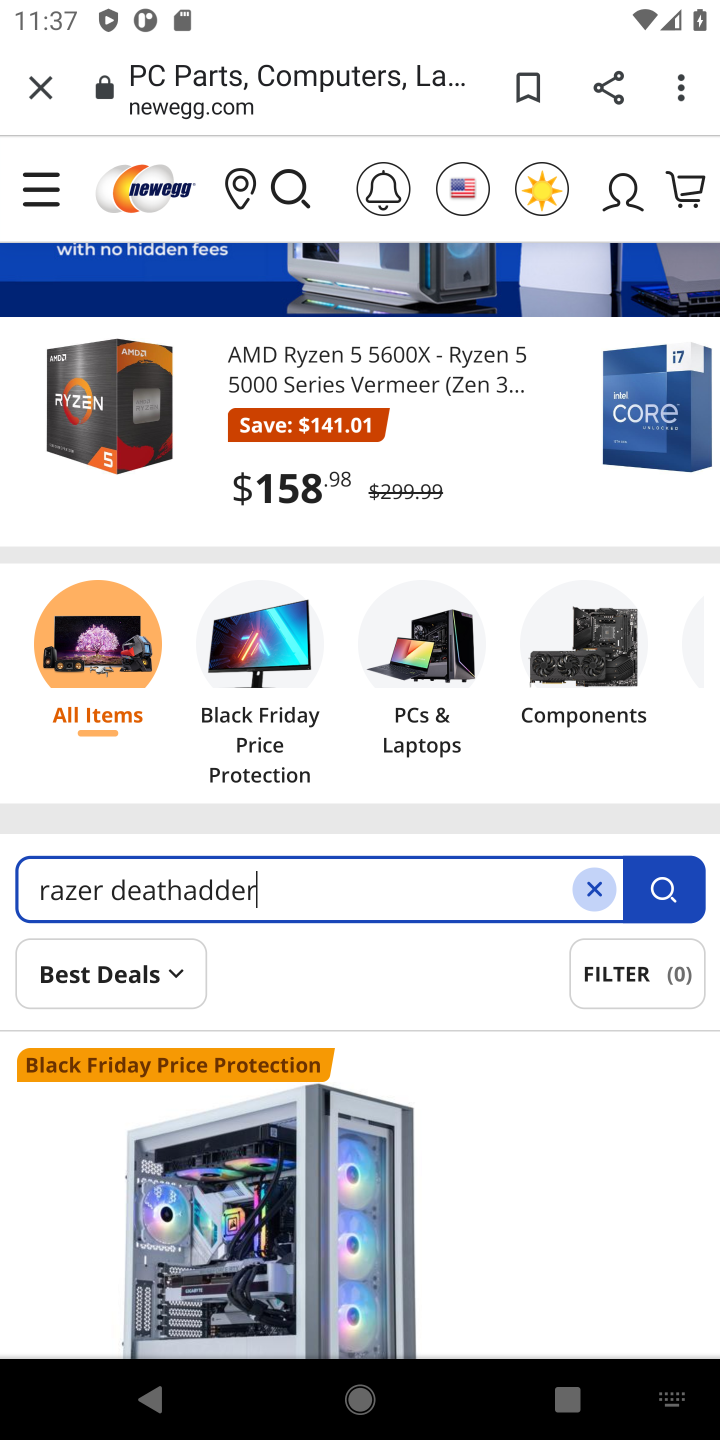
Step 26: press enter
Your task to perform on an android device: Search for razer deathadder on newegg, select the first entry, add it to the cart, then select checkout. Image 27: 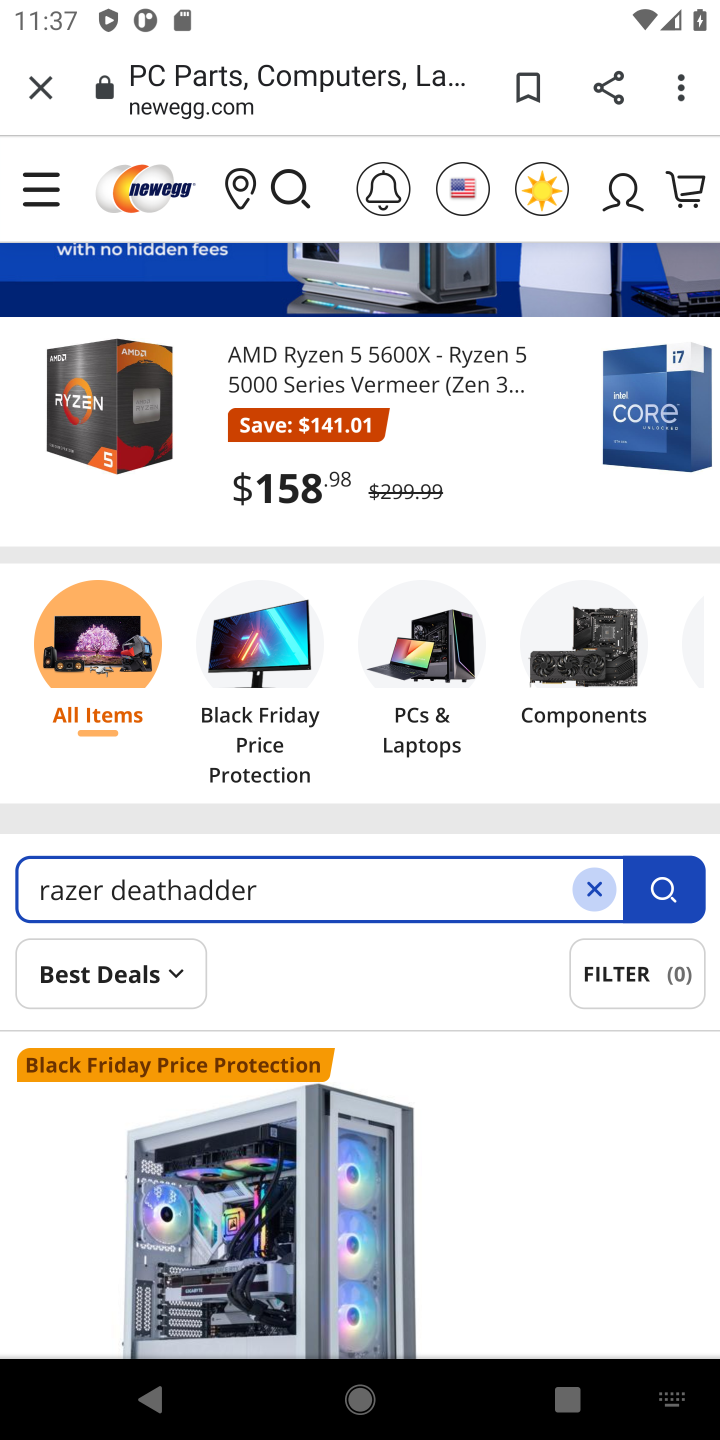
Step 27: type ""
Your task to perform on an android device: Search for razer deathadder on newegg, select the first entry, add it to the cart, then select checkout. Image 28: 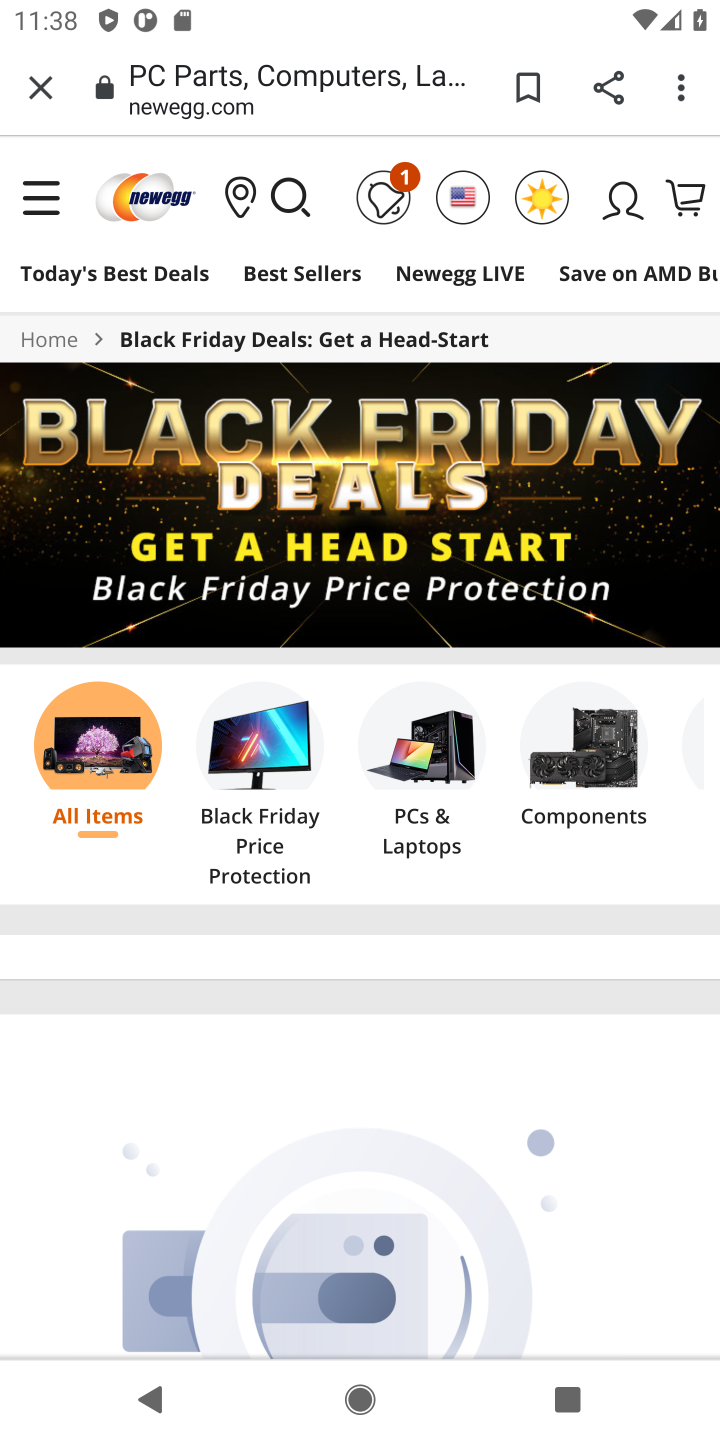
Step 28: task complete